Your task to perform on an android device: change the clock display to digital Image 0: 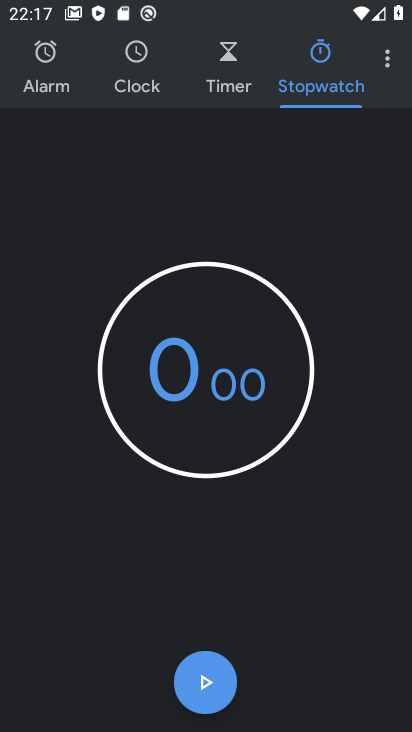
Step 0: click (397, 54)
Your task to perform on an android device: change the clock display to digital Image 1: 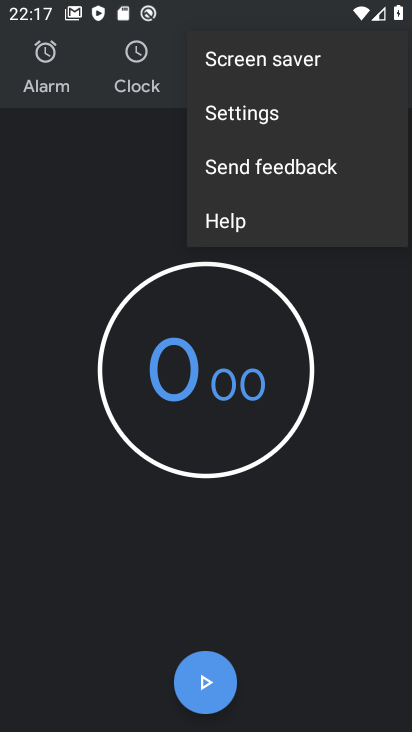
Step 1: click (215, 125)
Your task to perform on an android device: change the clock display to digital Image 2: 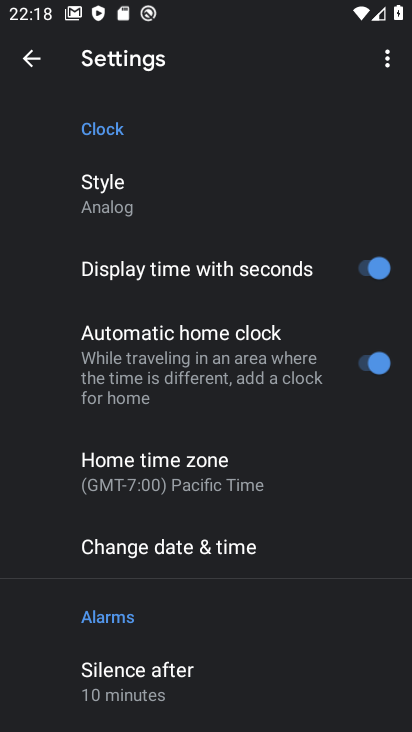
Step 2: click (141, 195)
Your task to perform on an android device: change the clock display to digital Image 3: 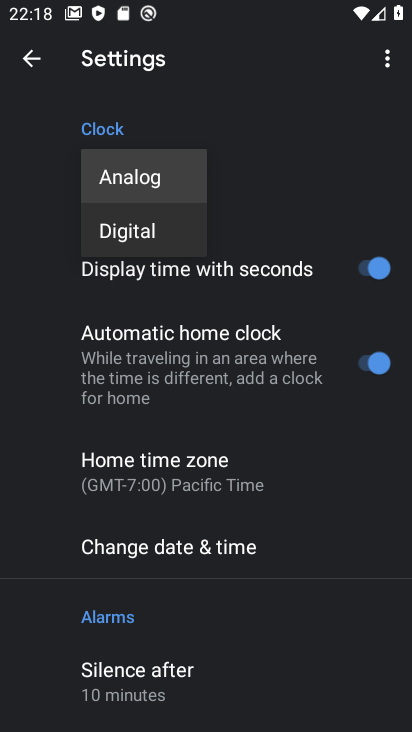
Step 3: click (152, 227)
Your task to perform on an android device: change the clock display to digital Image 4: 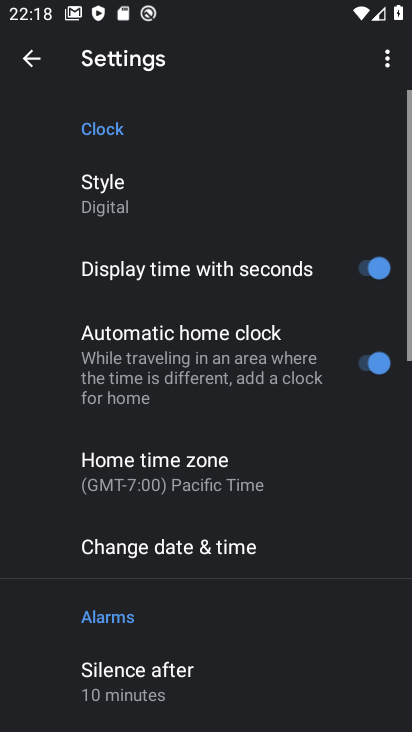
Step 4: task complete